Your task to perform on an android device: read, delete, or share a saved page in the chrome app Image 0: 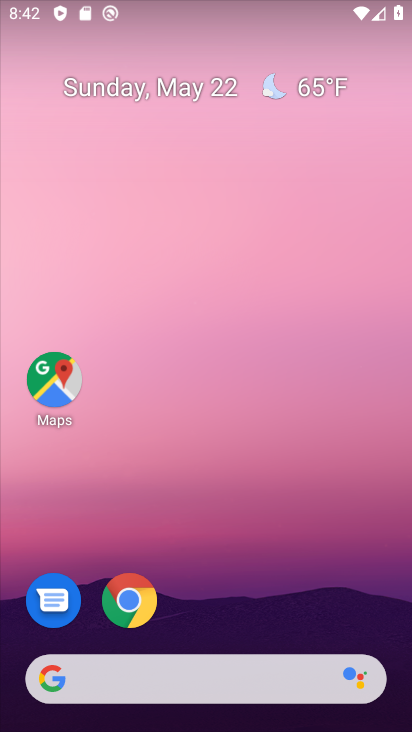
Step 0: click (124, 616)
Your task to perform on an android device: read, delete, or share a saved page in the chrome app Image 1: 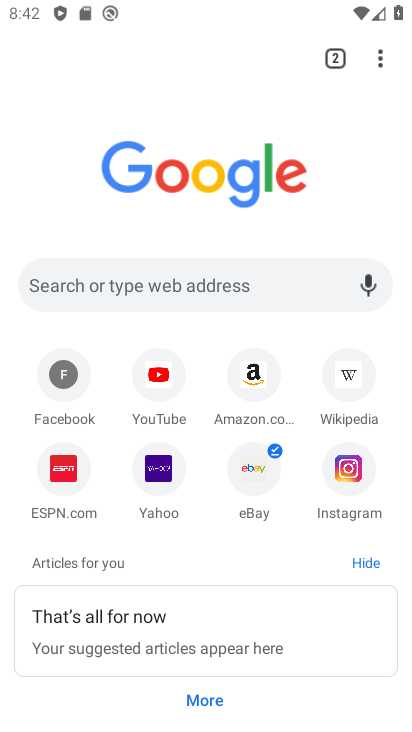
Step 1: click (382, 70)
Your task to perform on an android device: read, delete, or share a saved page in the chrome app Image 2: 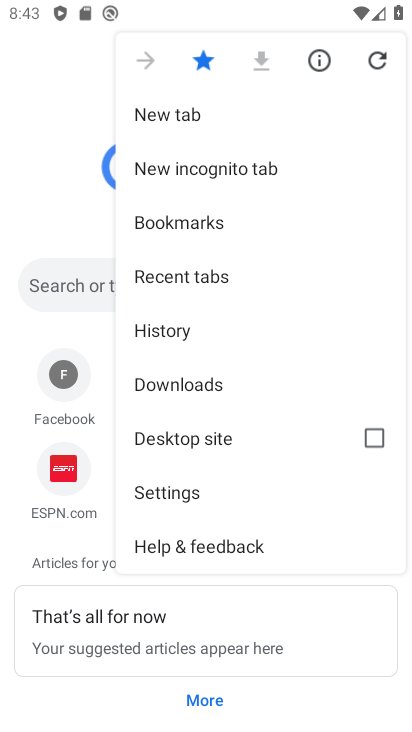
Step 2: click (178, 490)
Your task to perform on an android device: read, delete, or share a saved page in the chrome app Image 3: 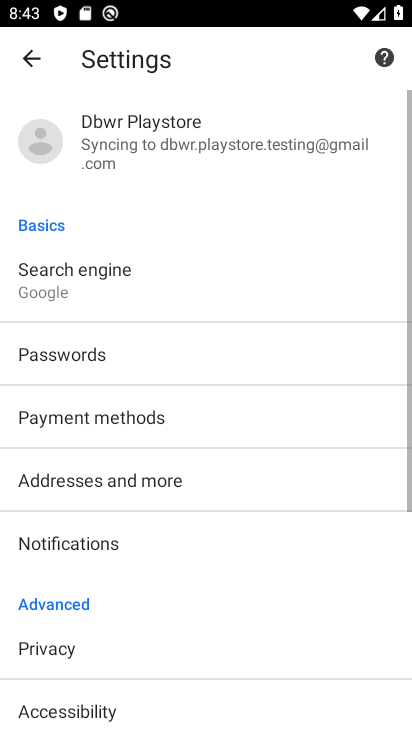
Step 3: task complete